Your task to perform on an android device: Turn on the flashlight Image 0: 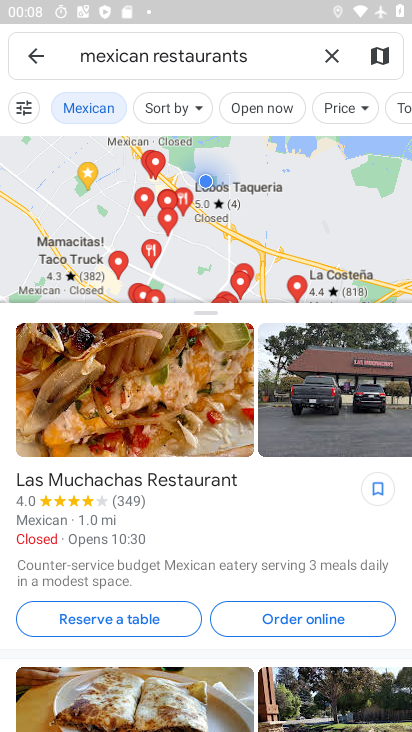
Step 0: press home button
Your task to perform on an android device: Turn on the flashlight Image 1: 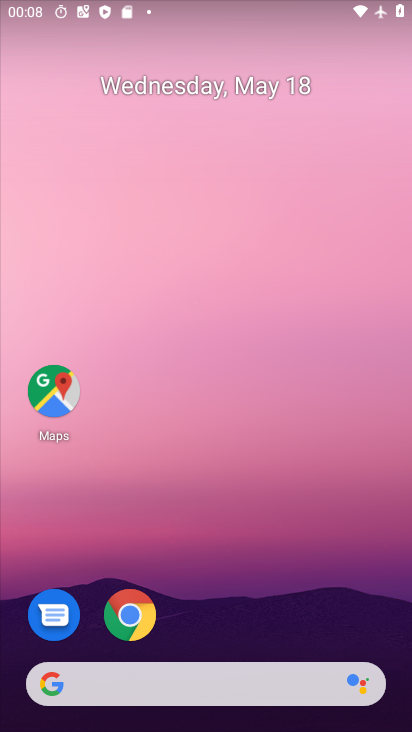
Step 1: drag from (277, 622) to (273, 198)
Your task to perform on an android device: Turn on the flashlight Image 2: 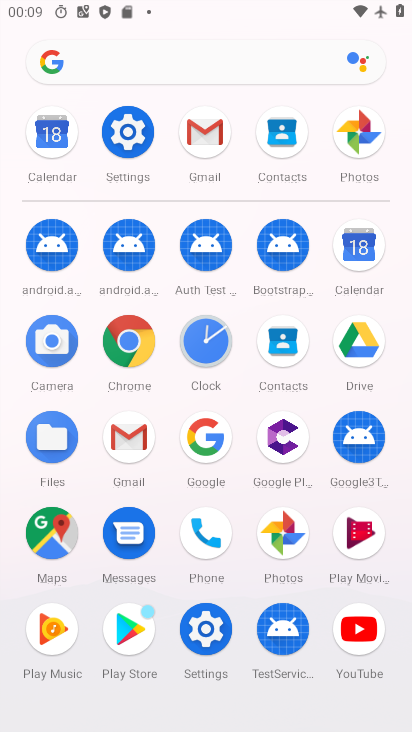
Step 2: click (134, 135)
Your task to perform on an android device: Turn on the flashlight Image 3: 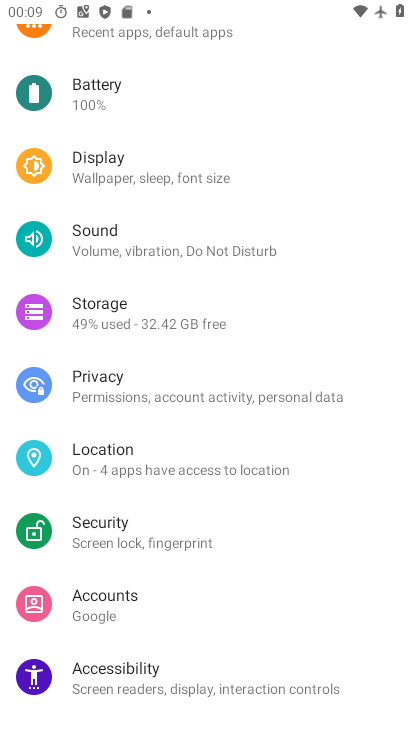
Step 3: task complete